Your task to perform on an android device: turn on notifications settings in the gmail app Image 0: 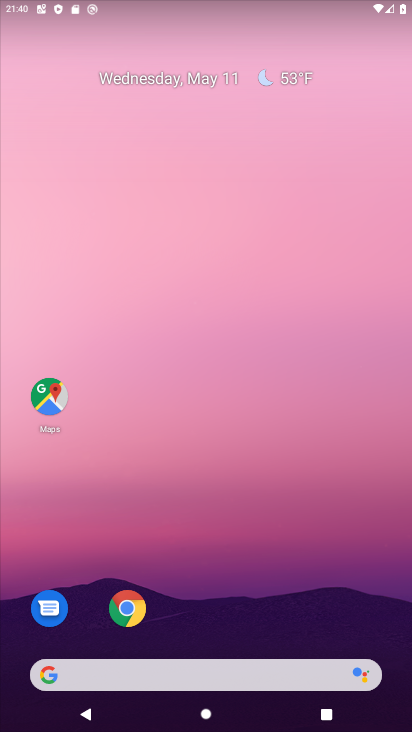
Step 0: drag from (206, 621) to (310, 243)
Your task to perform on an android device: turn on notifications settings in the gmail app Image 1: 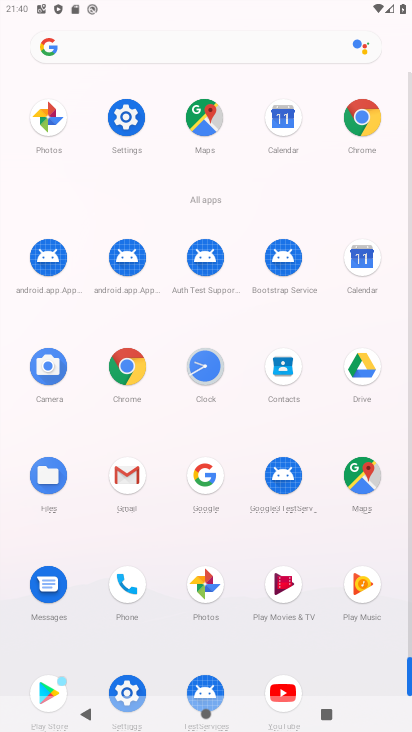
Step 1: click (125, 477)
Your task to perform on an android device: turn on notifications settings in the gmail app Image 2: 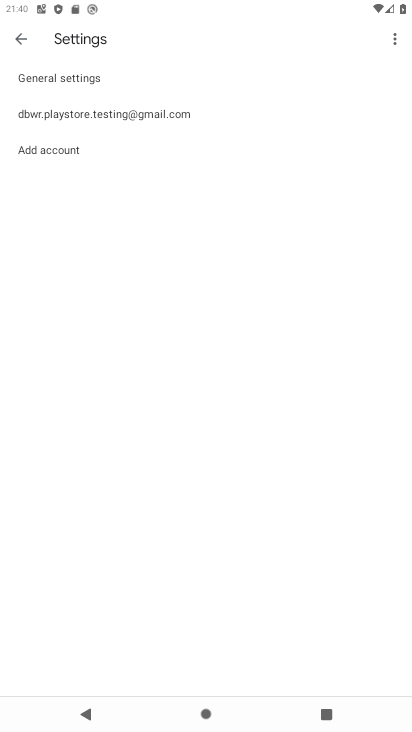
Step 2: press back button
Your task to perform on an android device: turn on notifications settings in the gmail app Image 3: 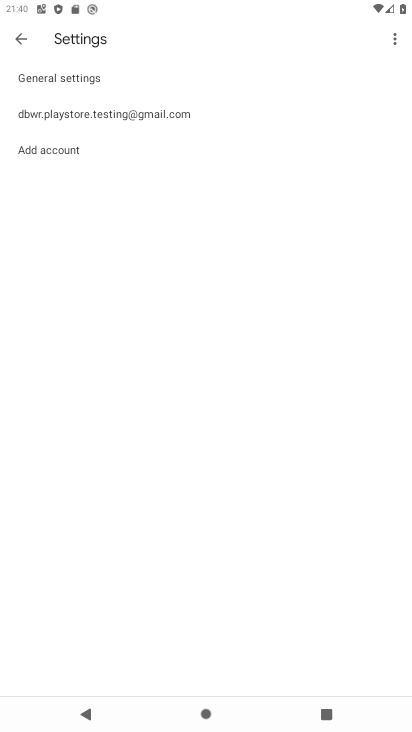
Step 3: press back button
Your task to perform on an android device: turn on notifications settings in the gmail app Image 4: 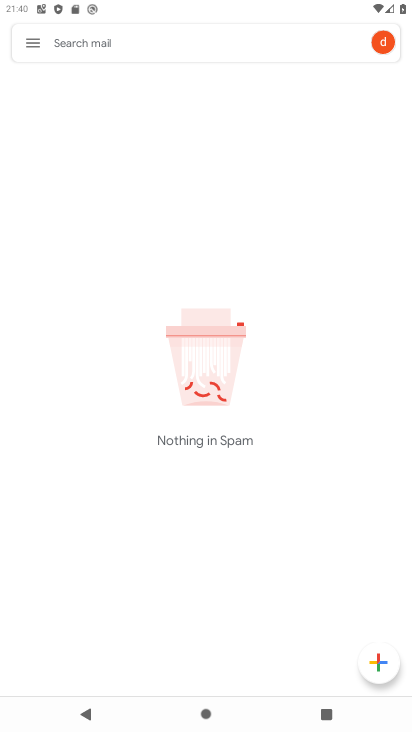
Step 4: click (35, 43)
Your task to perform on an android device: turn on notifications settings in the gmail app Image 5: 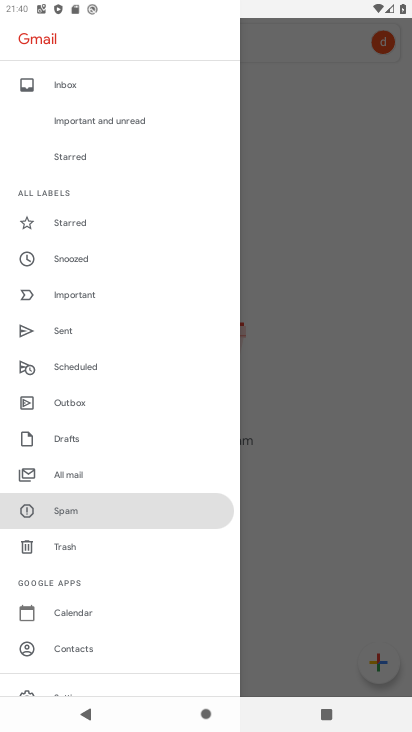
Step 5: drag from (91, 656) to (146, 460)
Your task to perform on an android device: turn on notifications settings in the gmail app Image 6: 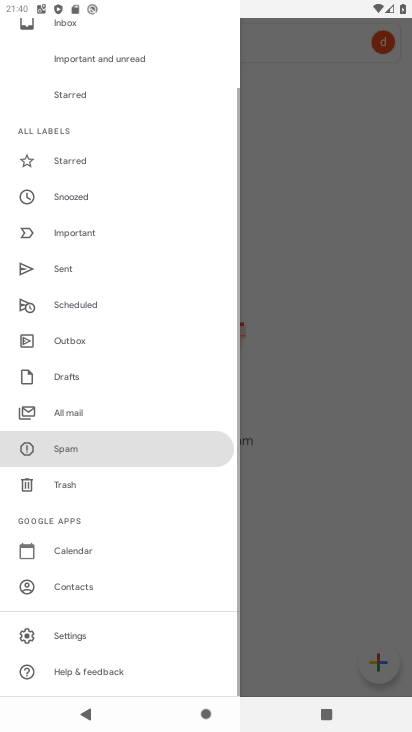
Step 6: click (87, 631)
Your task to perform on an android device: turn on notifications settings in the gmail app Image 7: 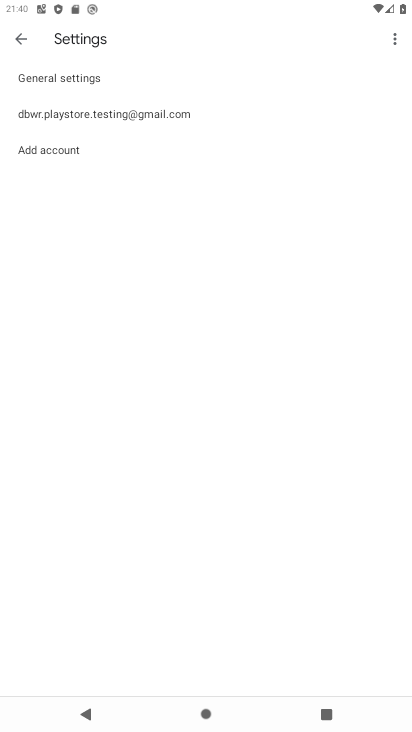
Step 7: click (109, 118)
Your task to perform on an android device: turn on notifications settings in the gmail app Image 8: 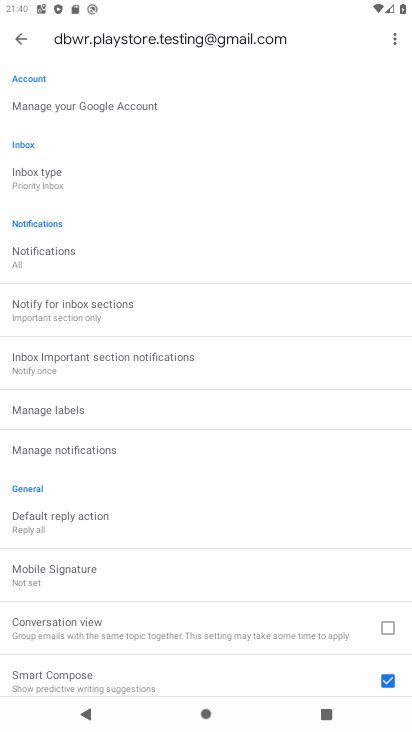
Step 8: click (77, 265)
Your task to perform on an android device: turn on notifications settings in the gmail app Image 9: 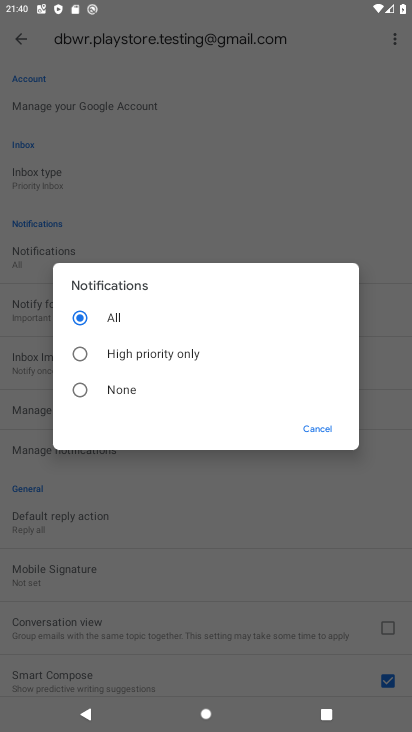
Step 9: task complete